Your task to perform on an android device: Open CNN.com Image 0: 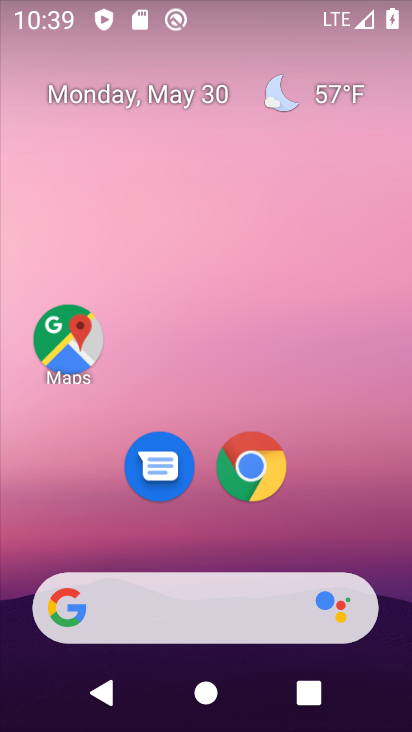
Step 0: click (274, 618)
Your task to perform on an android device: Open CNN.com Image 1: 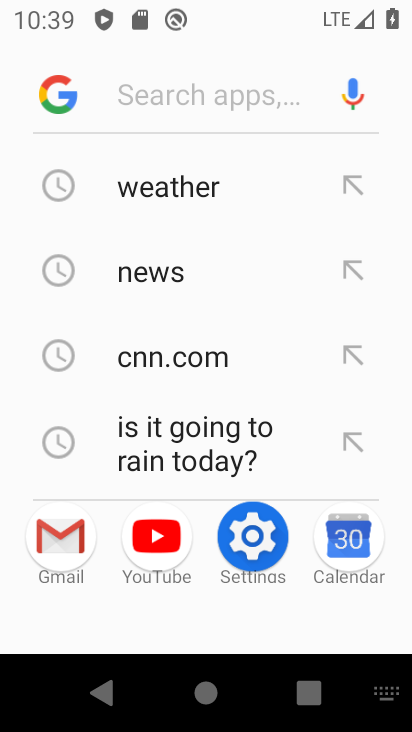
Step 1: click (201, 358)
Your task to perform on an android device: Open CNN.com Image 2: 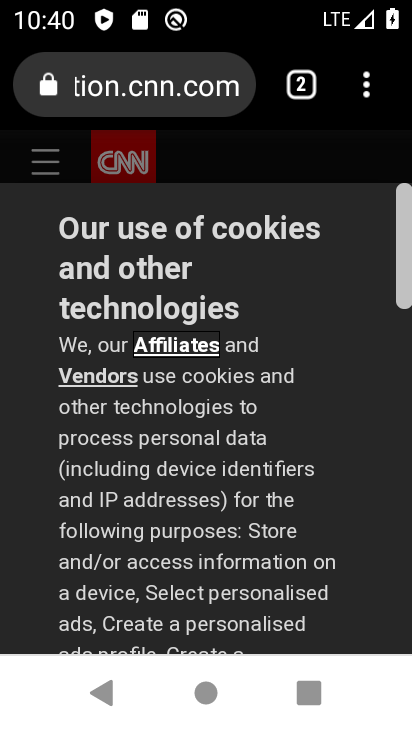
Step 2: task complete